Your task to perform on an android device: delete the emails in spam in the gmail app Image 0: 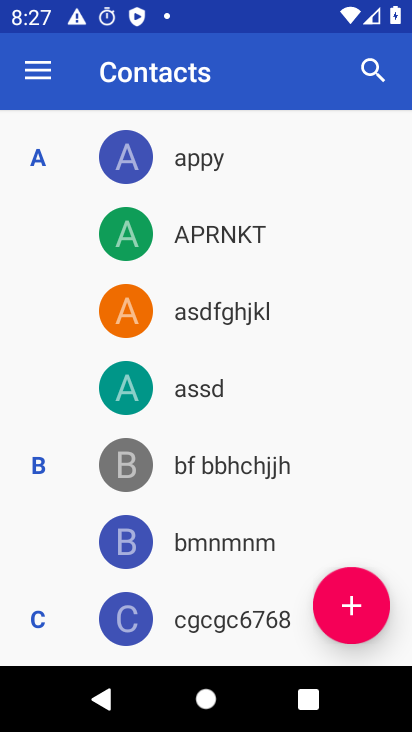
Step 0: press home button
Your task to perform on an android device: delete the emails in spam in the gmail app Image 1: 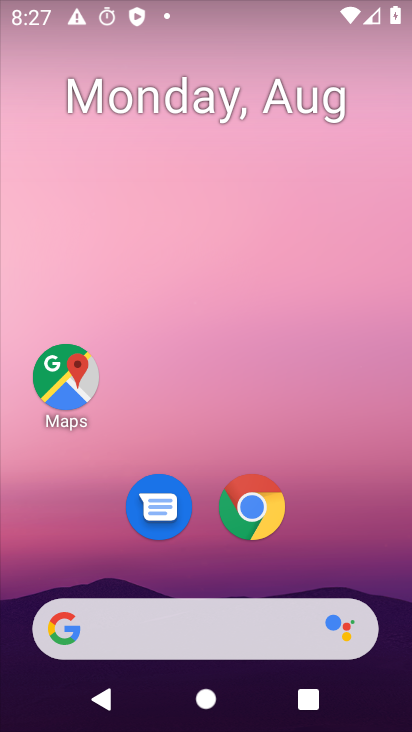
Step 1: click (59, 377)
Your task to perform on an android device: delete the emails in spam in the gmail app Image 2: 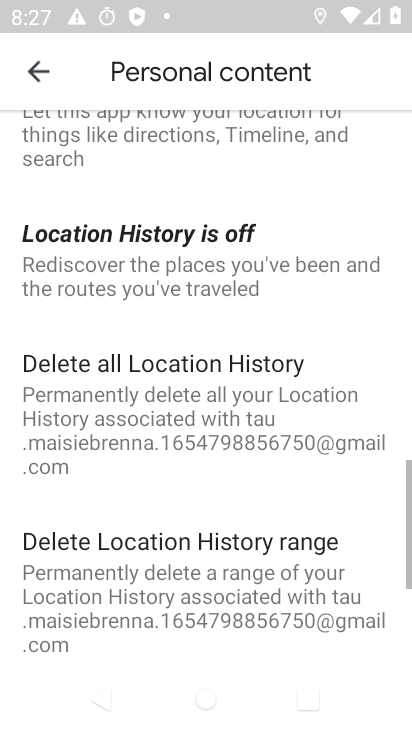
Step 2: press home button
Your task to perform on an android device: delete the emails in spam in the gmail app Image 3: 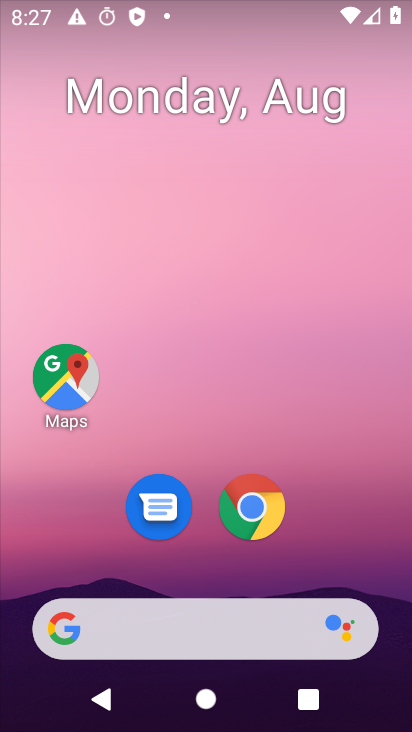
Step 3: drag from (204, 618) to (338, 123)
Your task to perform on an android device: delete the emails in spam in the gmail app Image 4: 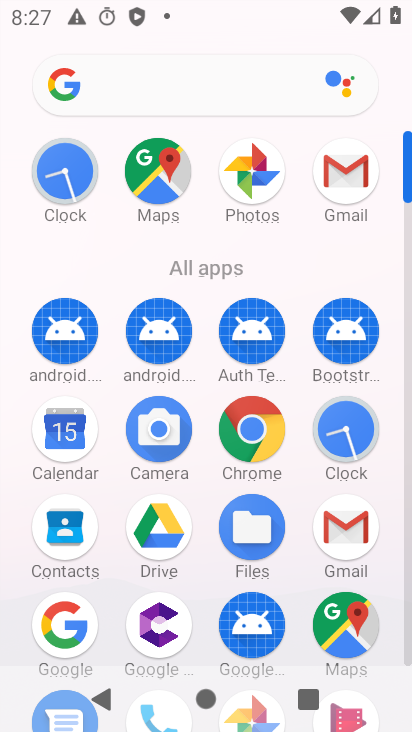
Step 4: click (351, 176)
Your task to perform on an android device: delete the emails in spam in the gmail app Image 5: 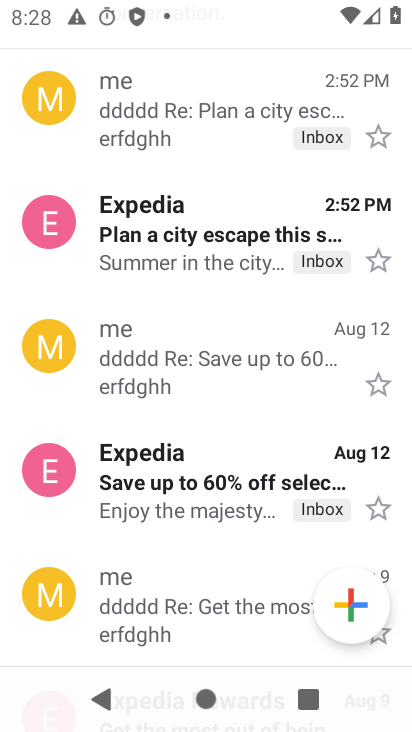
Step 5: drag from (222, 182) to (161, 597)
Your task to perform on an android device: delete the emails in spam in the gmail app Image 6: 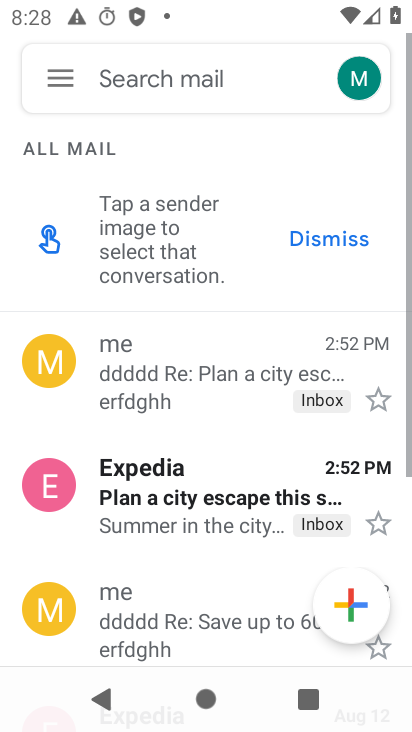
Step 6: click (60, 72)
Your task to perform on an android device: delete the emails in spam in the gmail app Image 7: 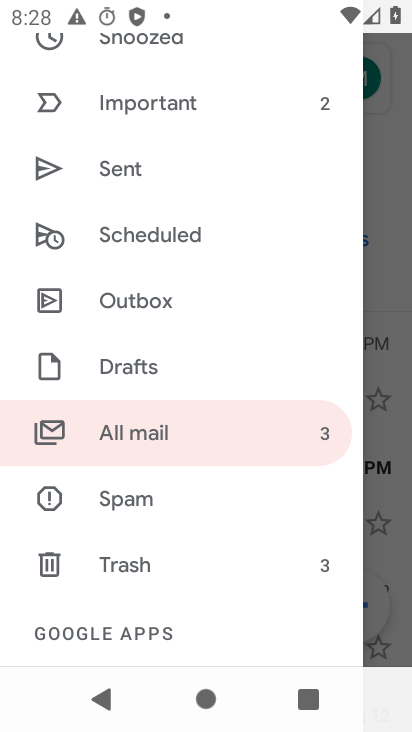
Step 7: click (133, 500)
Your task to perform on an android device: delete the emails in spam in the gmail app Image 8: 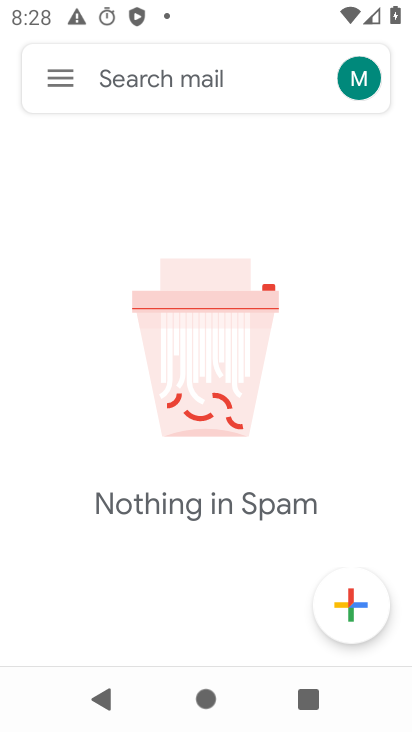
Step 8: task complete